Your task to perform on an android device: Open Amazon Image 0: 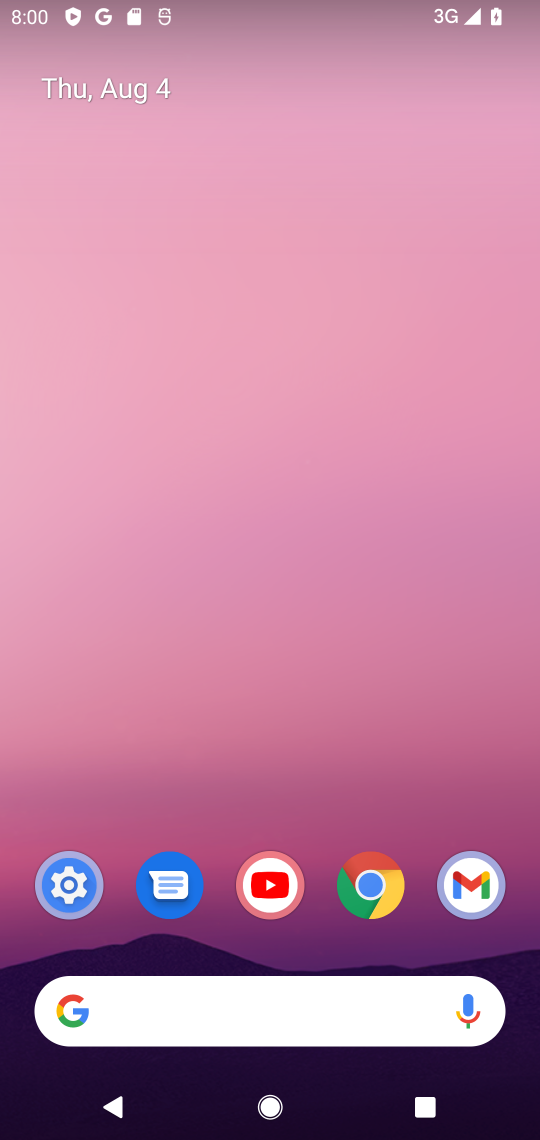
Step 0: click (372, 876)
Your task to perform on an android device: Open Amazon Image 1: 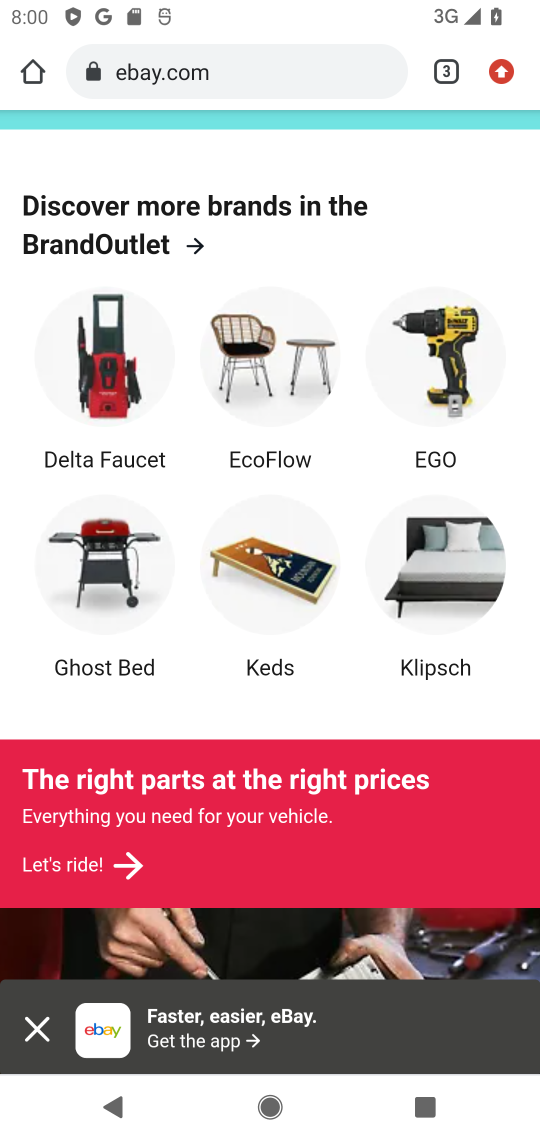
Step 1: click (441, 69)
Your task to perform on an android device: Open Amazon Image 2: 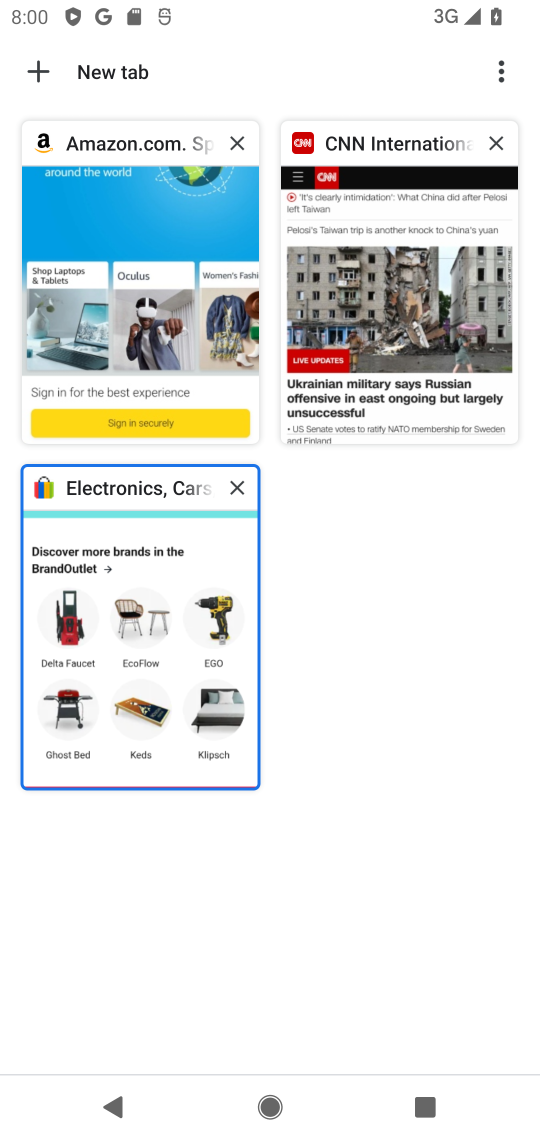
Step 2: click (120, 283)
Your task to perform on an android device: Open Amazon Image 3: 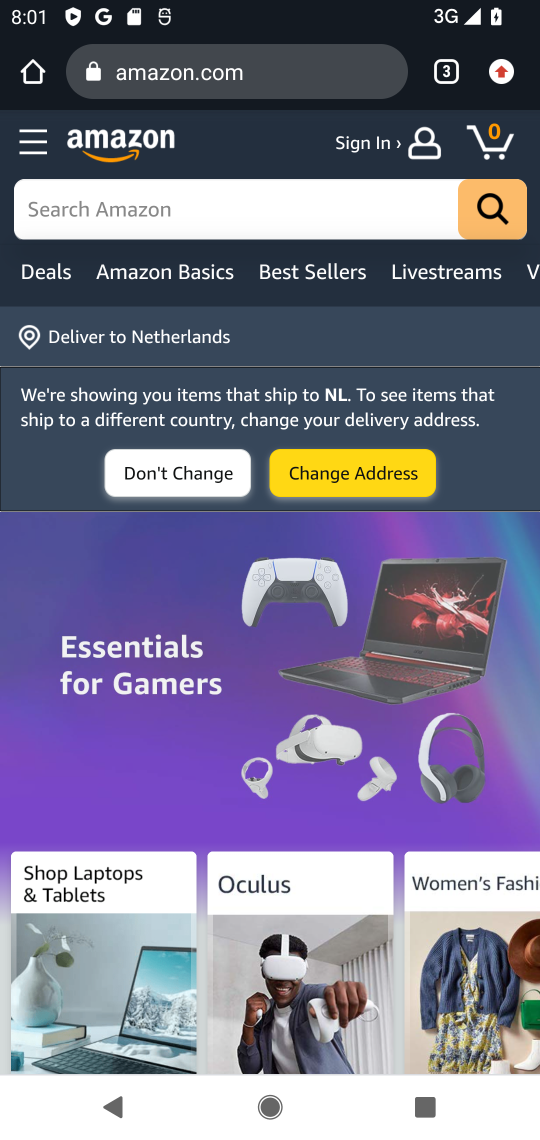
Step 3: task complete